Your task to perform on an android device: open app "Lyft - Rideshare, Bikes, Scooters & Transit" (install if not already installed) Image 0: 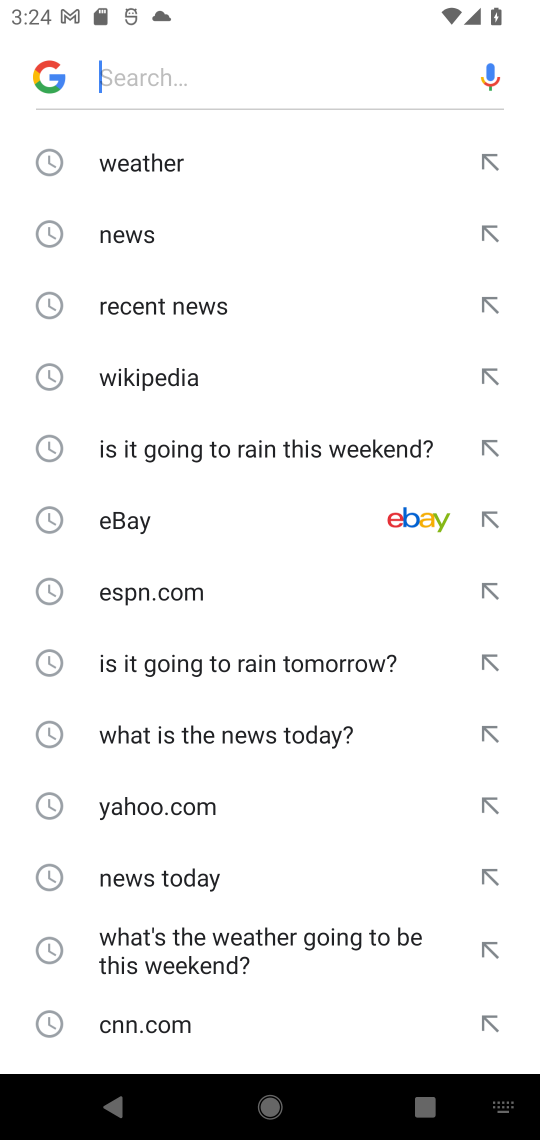
Step 0: press home button
Your task to perform on an android device: open app "Lyft - Rideshare, Bikes, Scooters & Transit" (install if not already installed) Image 1: 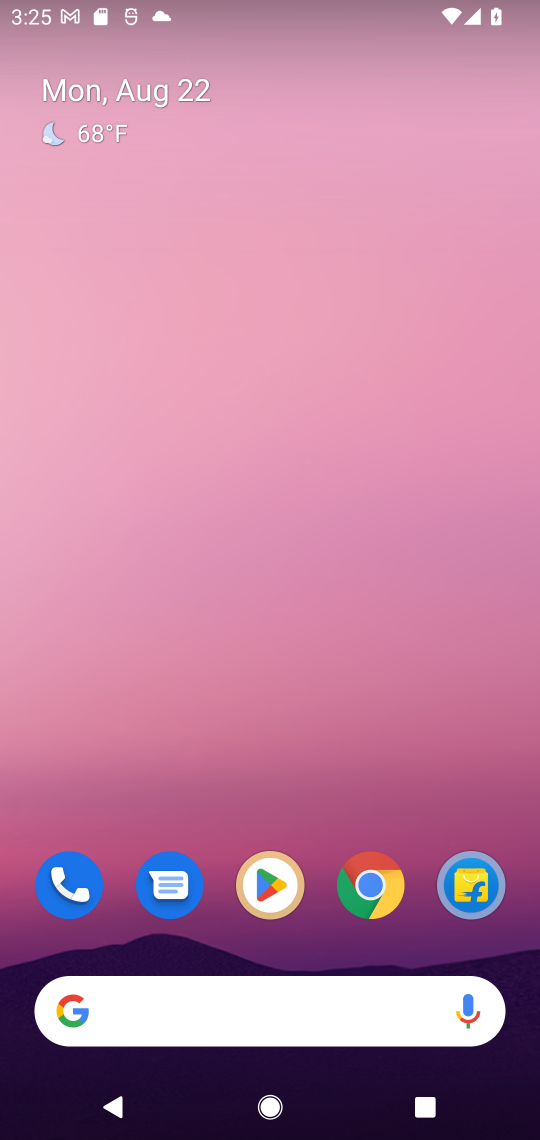
Step 1: click (261, 888)
Your task to perform on an android device: open app "Lyft - Rideshare, Bikes, Scooters & Transit" (install if not already installed) Image 2: 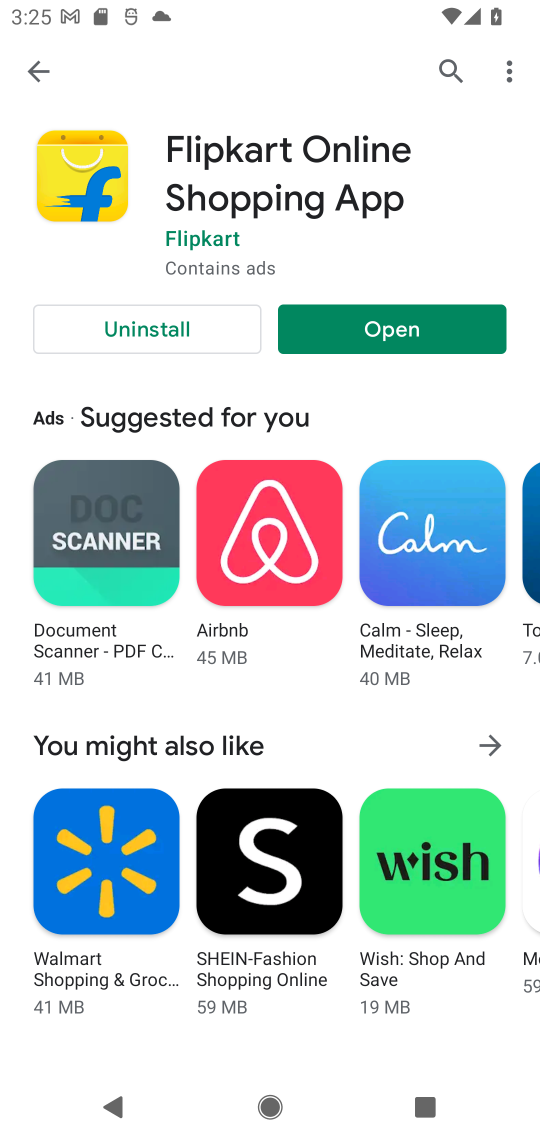
Step 2: click (454, 49)
Your task to perform on an android device: open app "Lyft - Rideshare, Bikes, Scooters & Transit" (install if not already installed) Image 3: 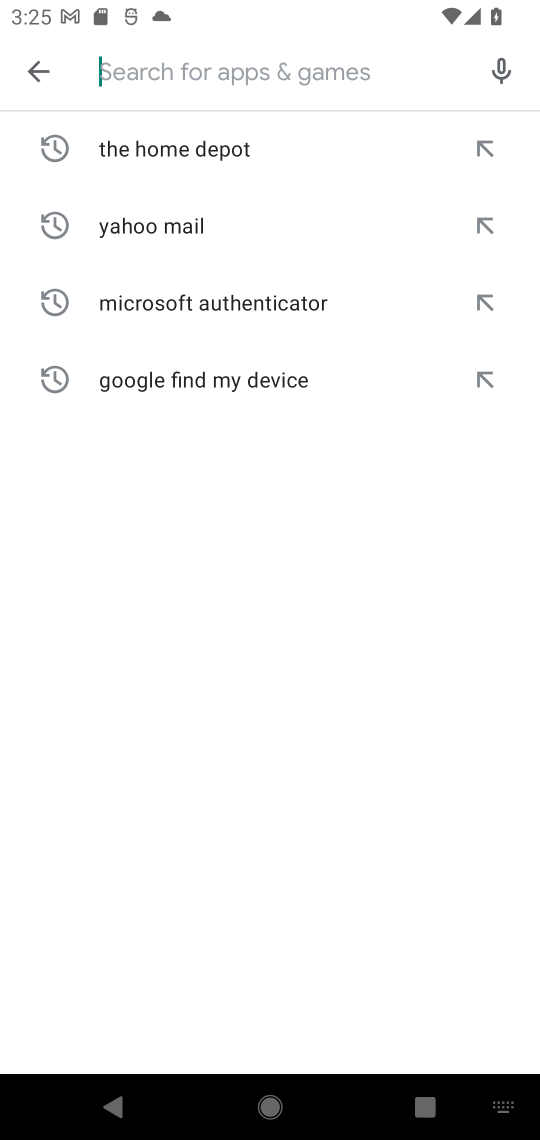
Step 3: type "Lyft"
Your task to perform on an android device: open app "Lyft - Rideshare, Bikes, Scooters & Transit" (install if not already installed) Image 4: 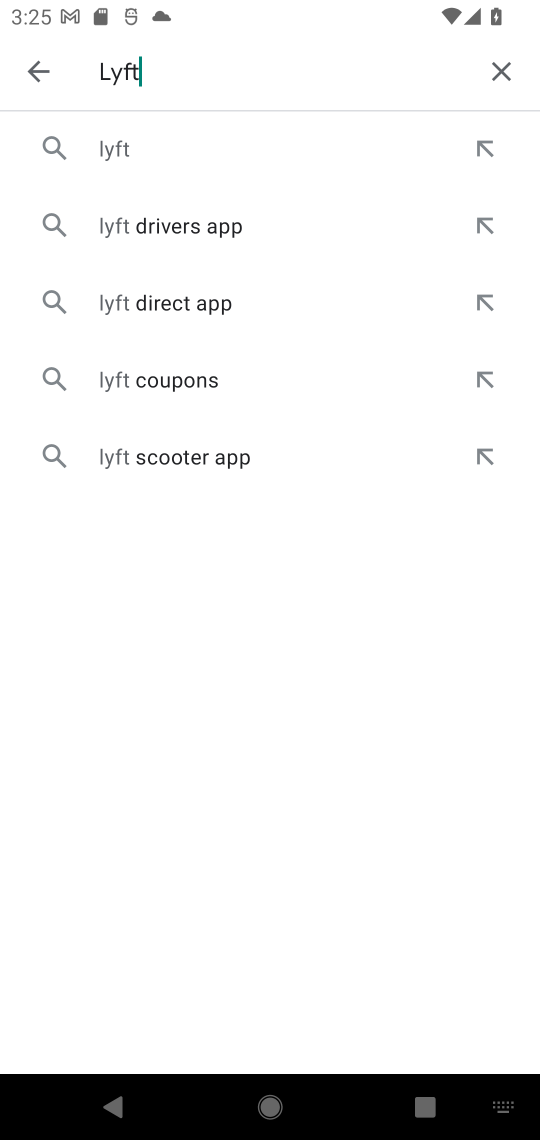
Step 4: click (157, 147)
Your task to perform on an android device: open app "Lyft - Rideshare, Bikes, Scooters & Transit" (install if not already installed) Image 5: 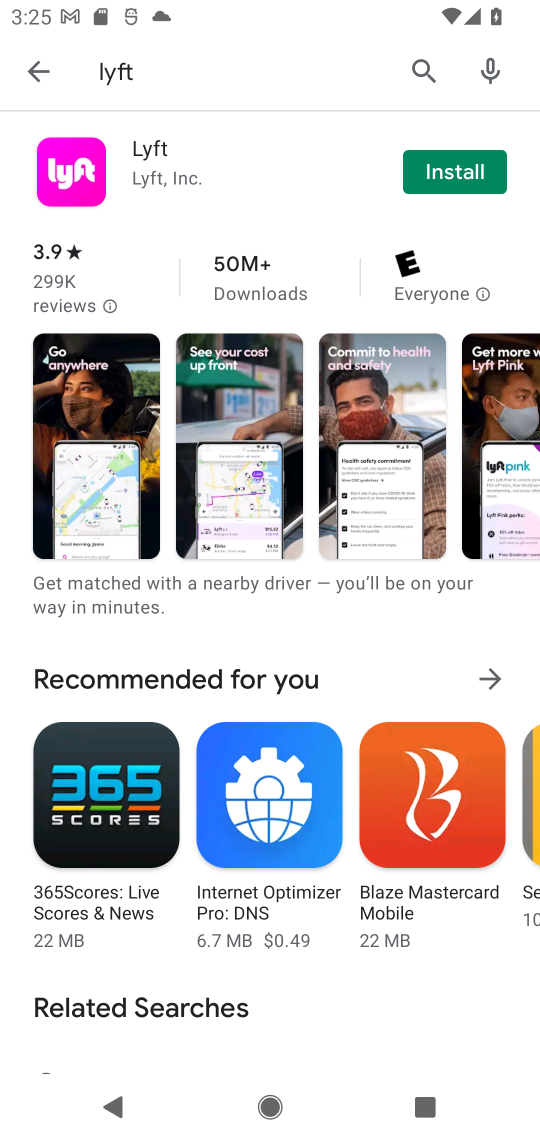
Step 5: click (452, 170)
Your task to perform on an android device: open app "Lyft - Rideshare, Bikes, Scooters & Transit" (install if not already installed) Image 6: 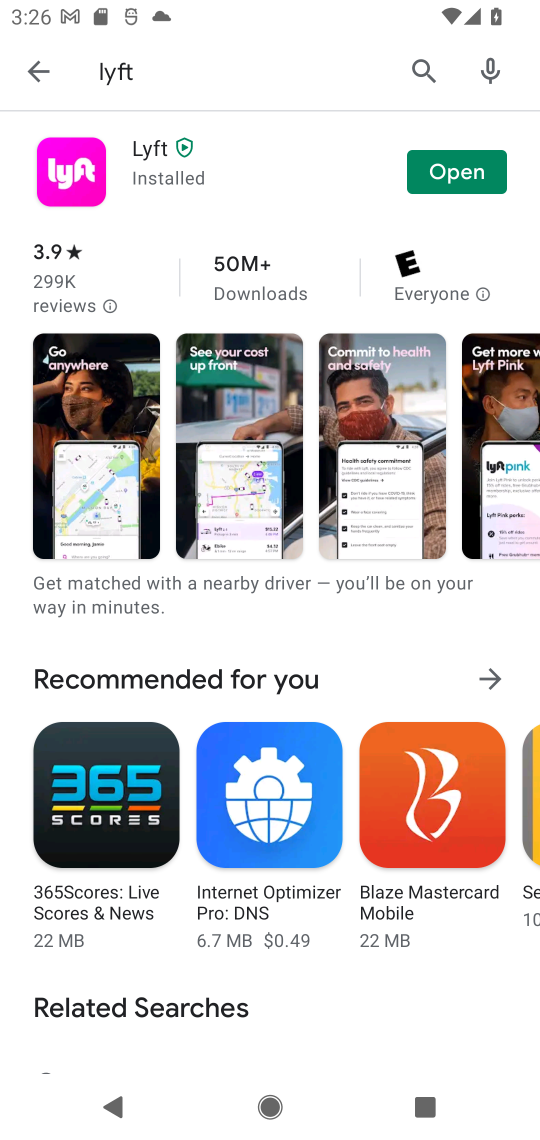
Step 6: click (476, 179)
Your task to perform on an android device: open app "Lyft - Rideshare, Bikes, Scooters & Transit" (install if not already installed) Image 7: 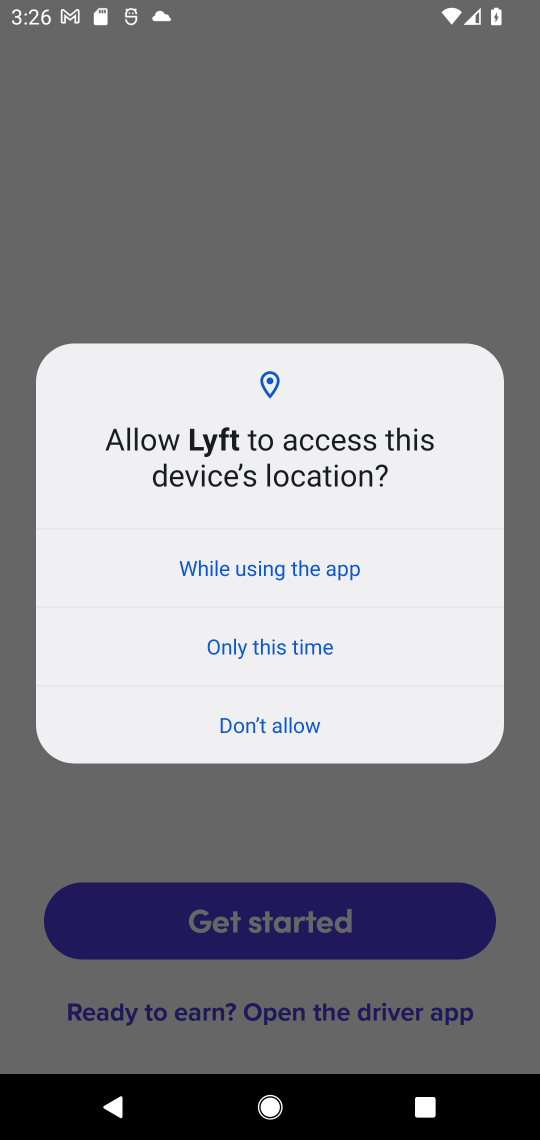
Step 7: click (297, 544)
Your task to perform on an android device: open app "Lyft - Rideshare, Bikes, Scooters & Transit" (install if not already installed) Image 8: 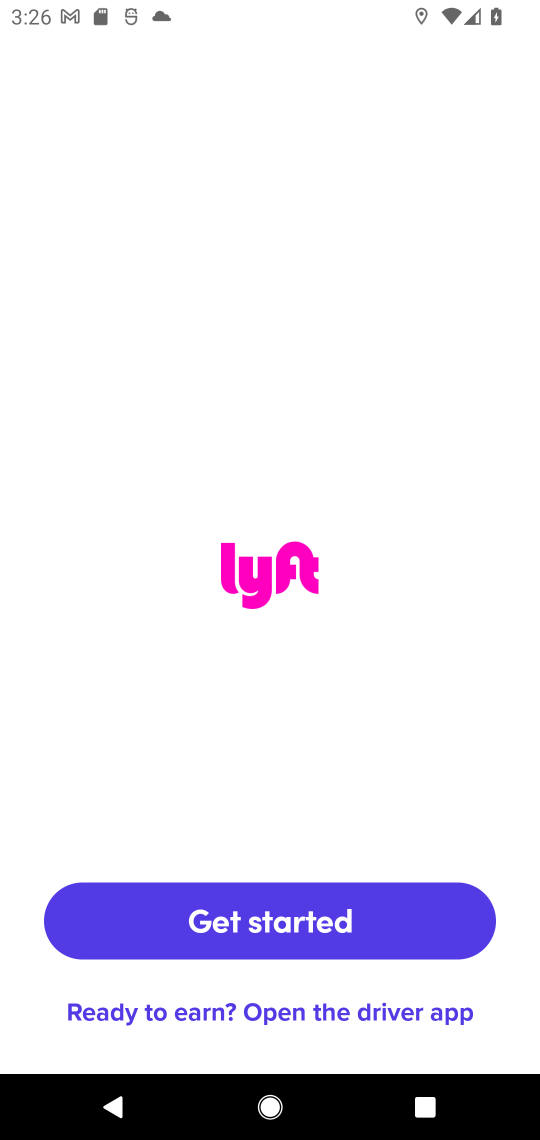
Step 8: click (265, 933)
Your task to perform on an android device: open app "Lyft - Rideshare, Bikes, Scooters & Transit" (install if not already installed) Image 9: 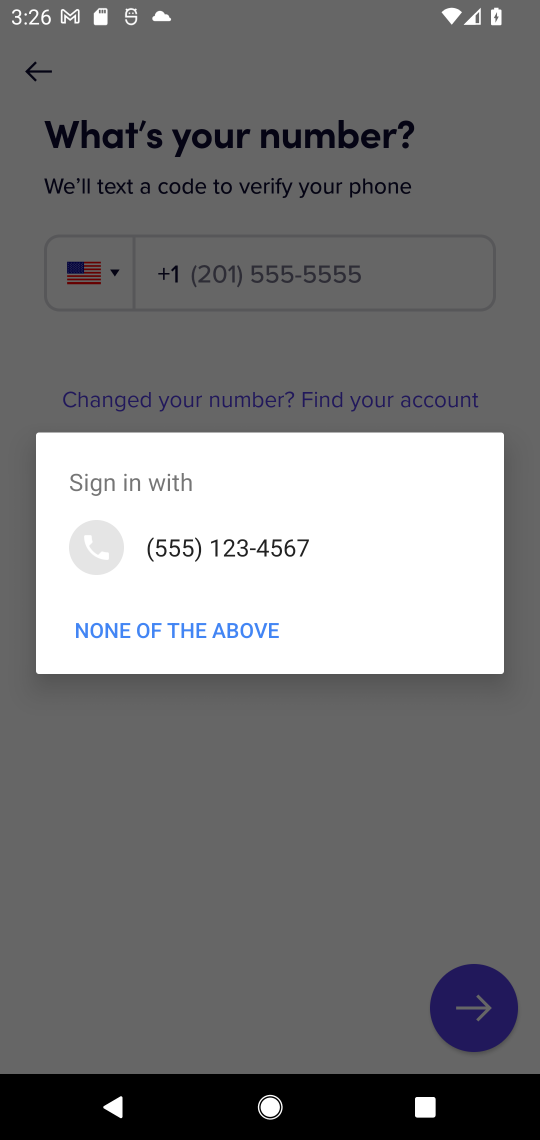
Step 9: click (223, 565)
Your task to perform on an android device: open app "Lyft - Rideshare, Bikes, Scooters & Transit" (install if not already installed) Image 10: 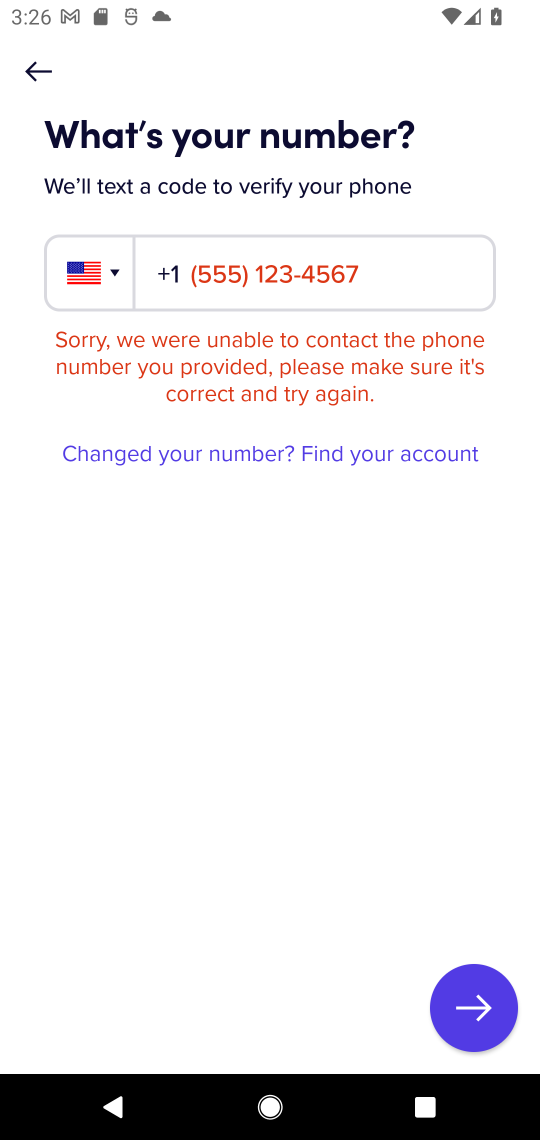
Step 10: task complete